Your task to perform on an android device: install app "Expedia: Hotels, Flights & Car" Image 0: 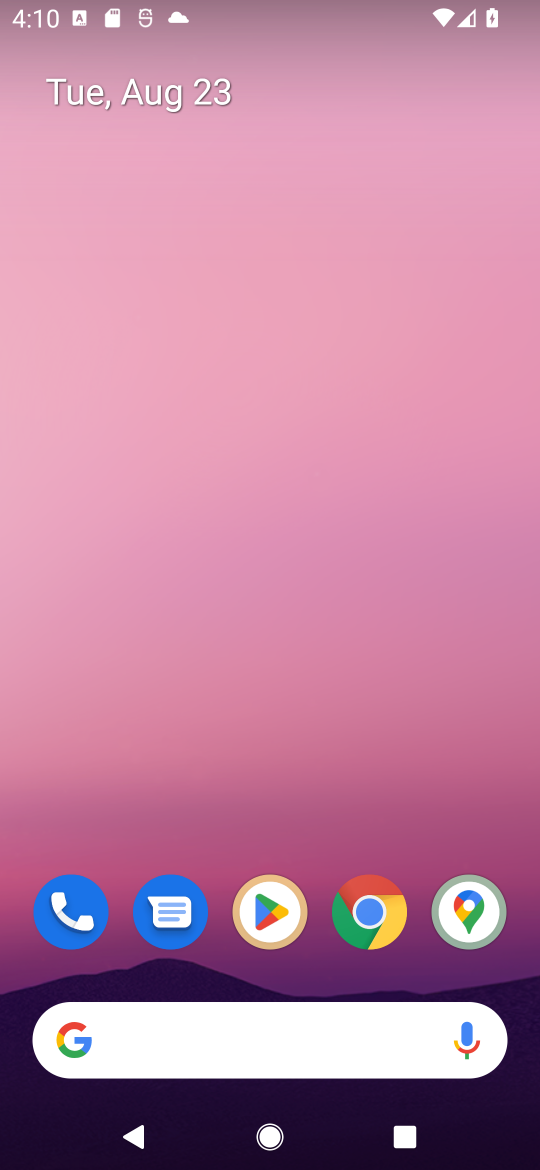
Step 0: drag from (188, 1045) to (203, 182)
Your task to perform on an android device: install app "Expedia: Hotels, Flights & Car" Image 1: 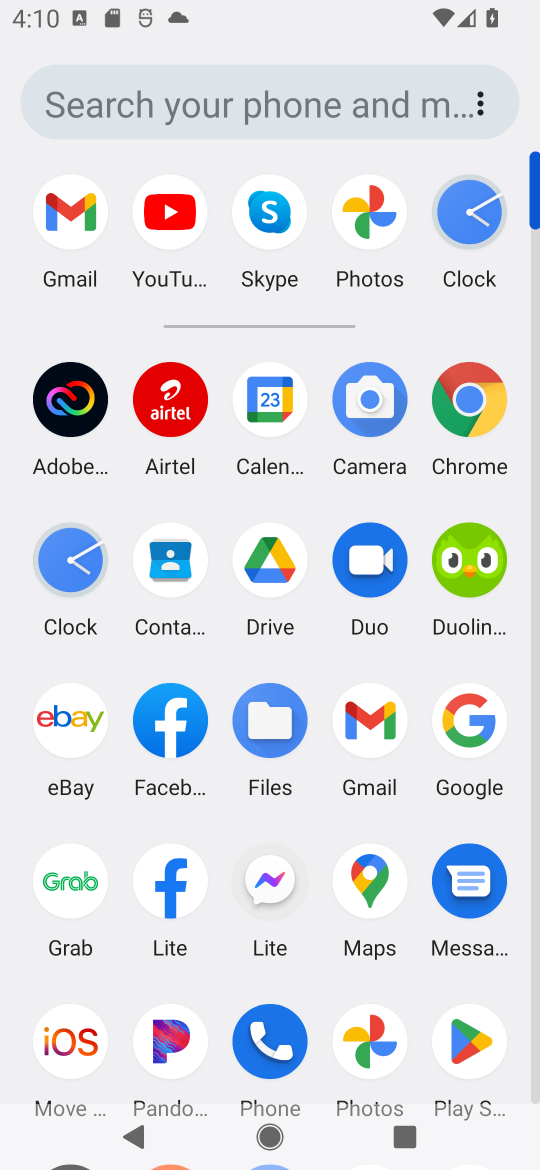
Step 1: click (468, 1041)
Your task to perform on an android device: install app "Expedia: Hotels, Flights & Car" Image 2: 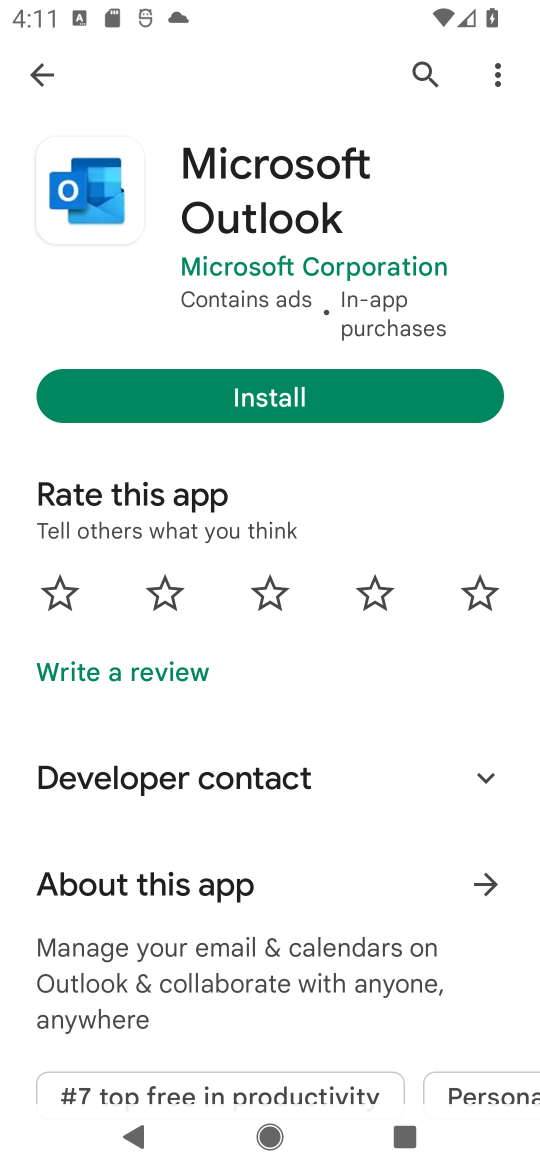
Step 2: press back button
Your task to perform on an android device: install app "Expedia: Hotels, Flights & Car" Image 3: 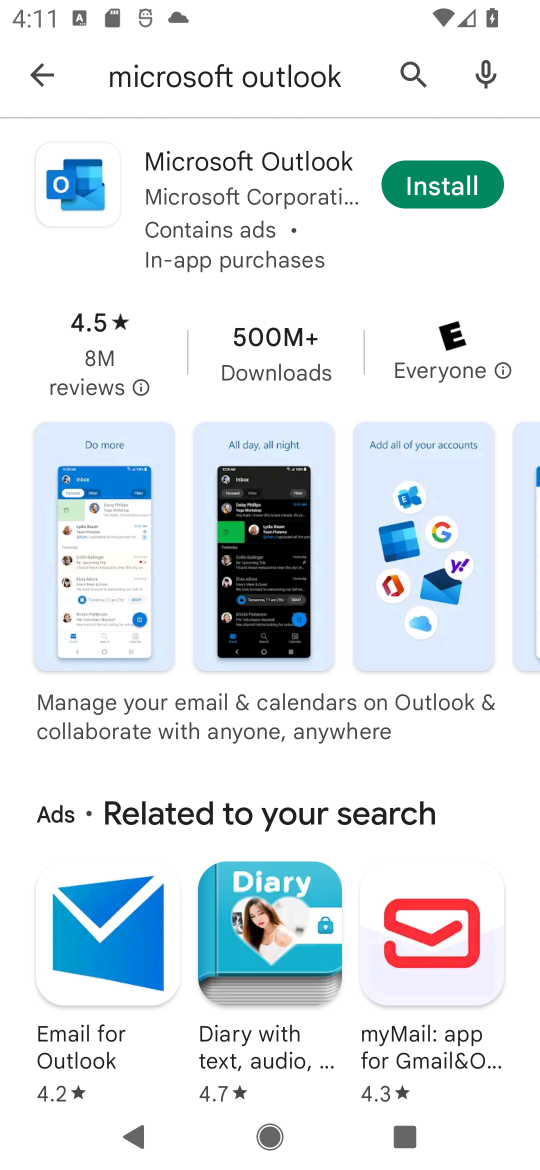
Step 3: press back button
Your task to perform on an android device: install app "Expedia: Hotels, Flights & Car" Image 4: 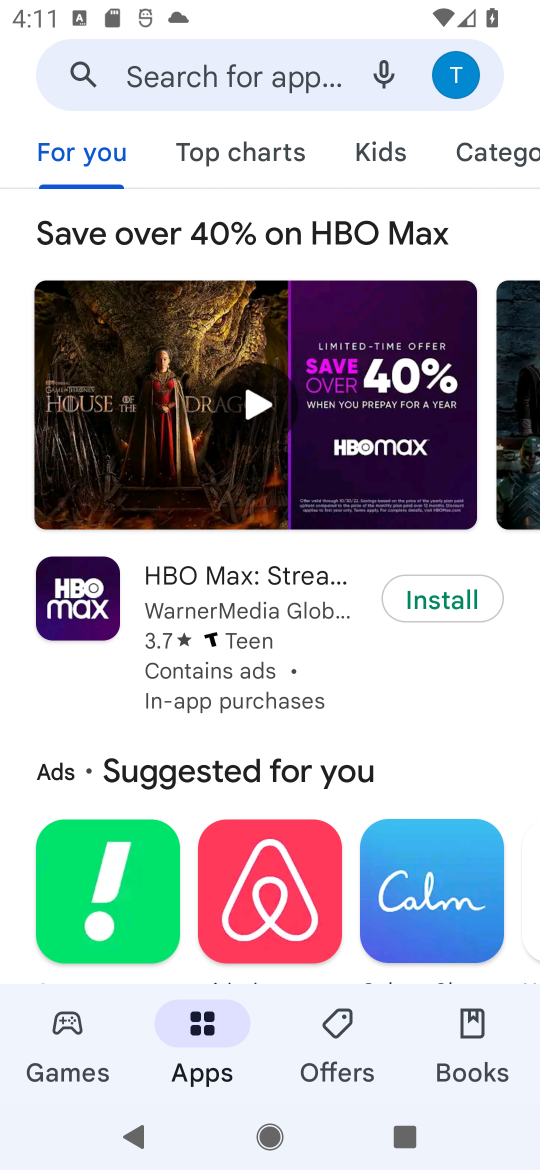
Step 4: click (268, 78)
Your task to perform on an android device: install app "Expedia: Hotels, Flights & Car" Image 5: 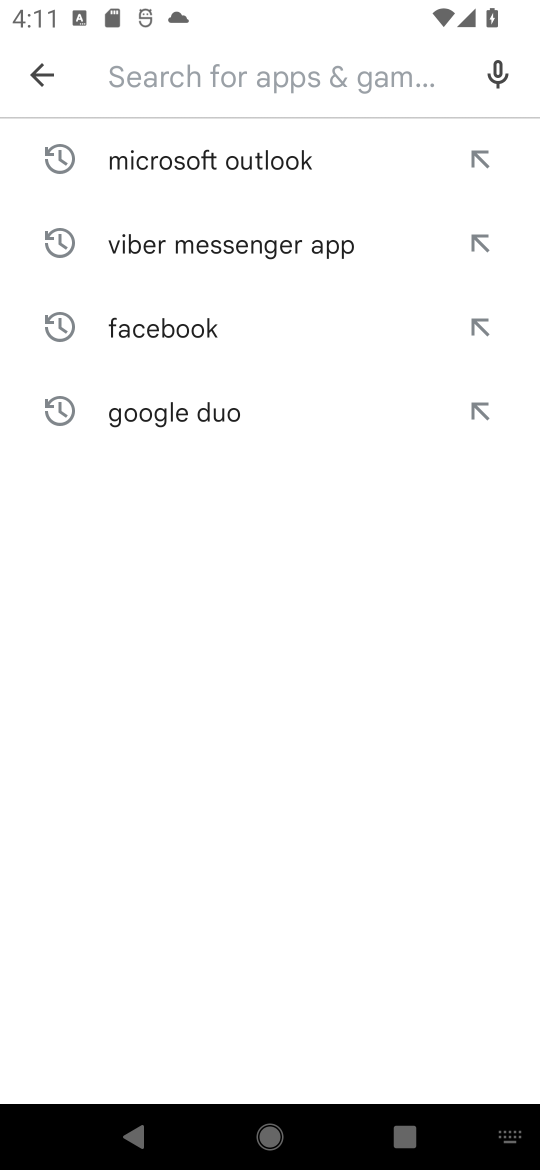
Step 5: type "Expedia: Hotels, Flights & Car"
Your task to perform on an android device: install app "Expedia: Hotels, Flights & Car" Image 6: 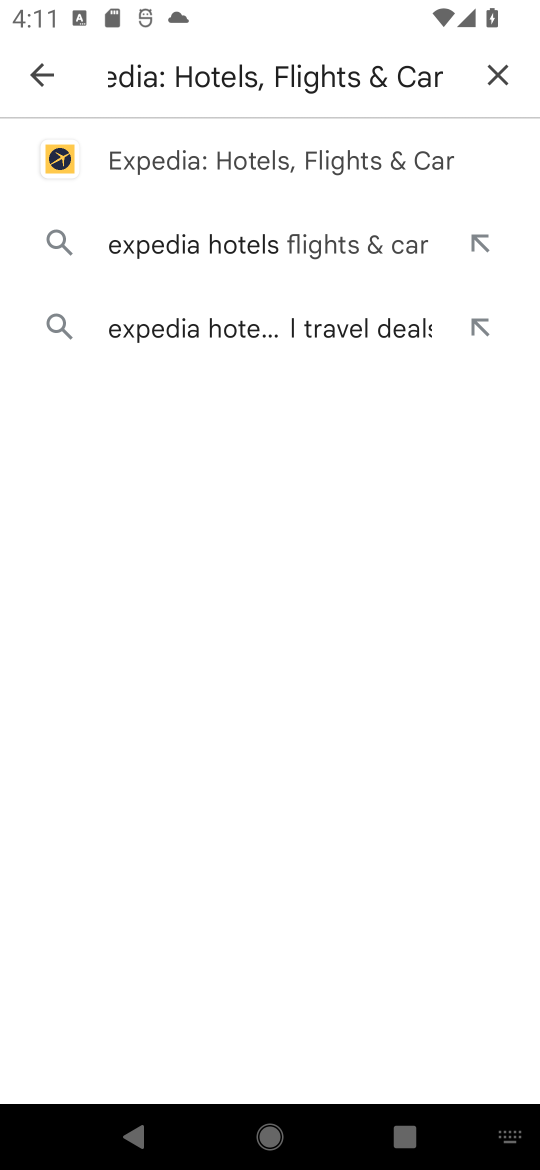
Step 6: click (188, 173)
Your task to perform on an android device: install app "Expedia: Hotels, Flights & Car" Image 7: 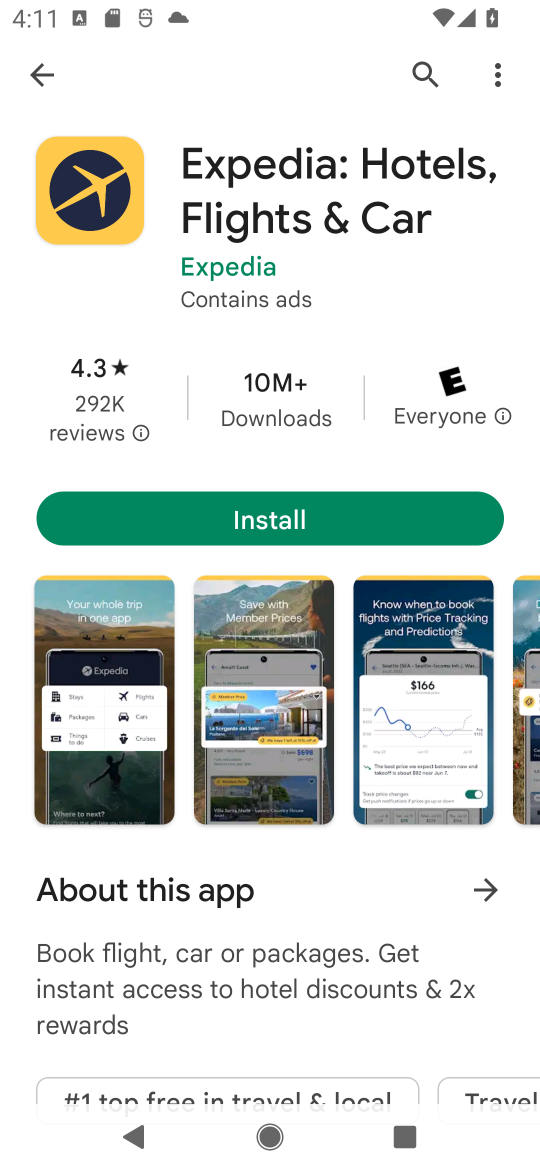
Step 7: click (302, 531)
Your task to perform on an android device: install app "Expedia: Hotels, Flights & Car" Image 8: 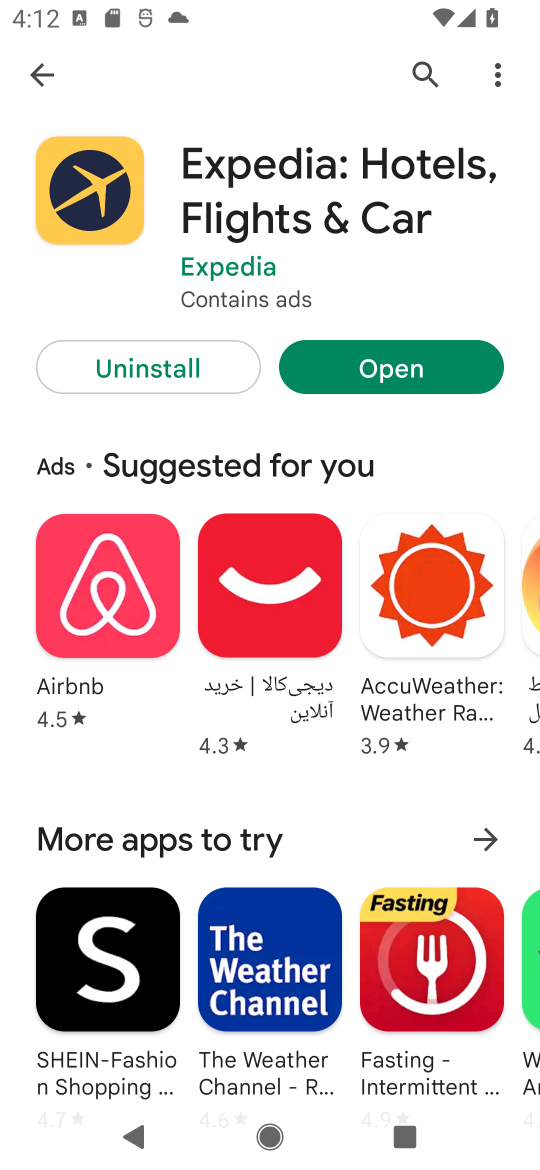
Step 8: task complete